Your task to perform on an android device: View the shopping cart on newegg. Image 0: 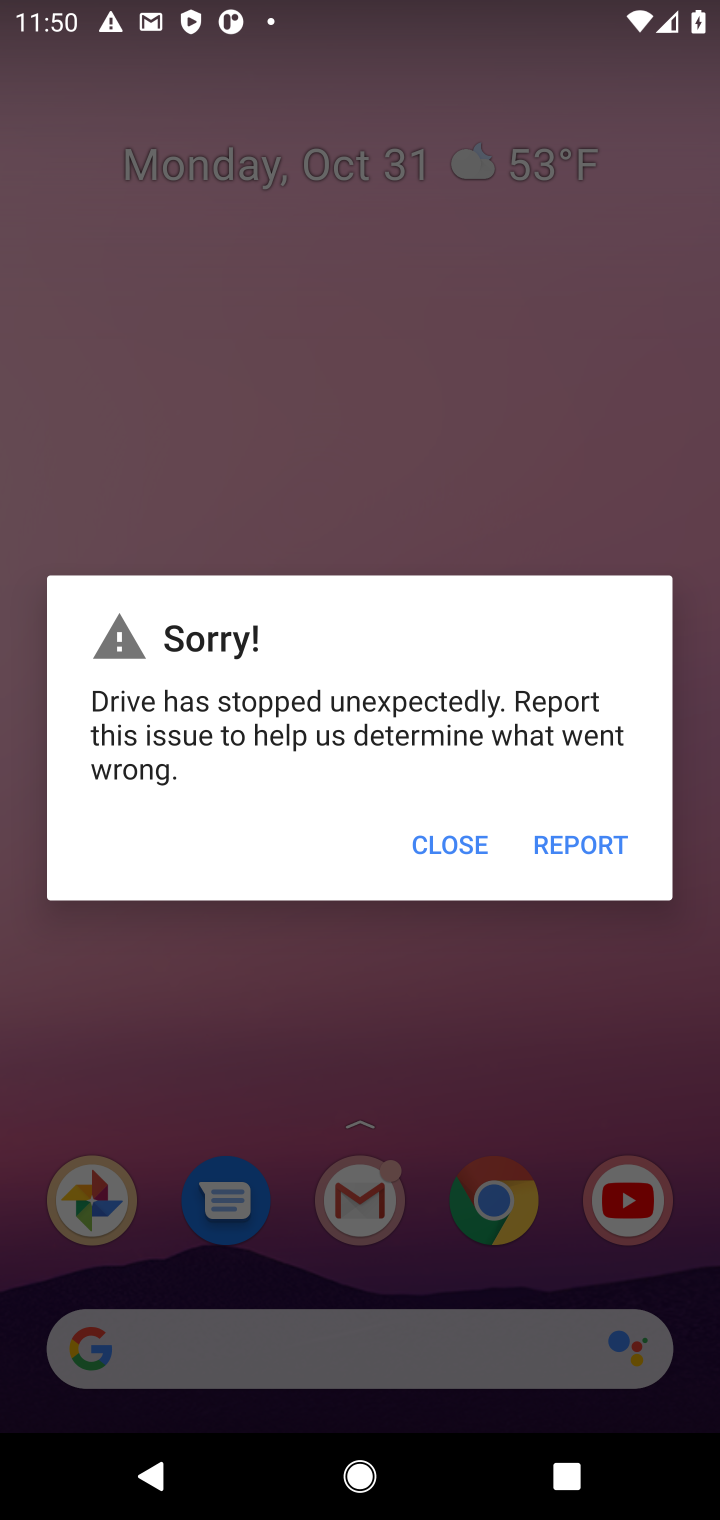
Step 0: click (403, 849)
Your task to perform on an android device: View the shopping cart on newegg. Image 1: 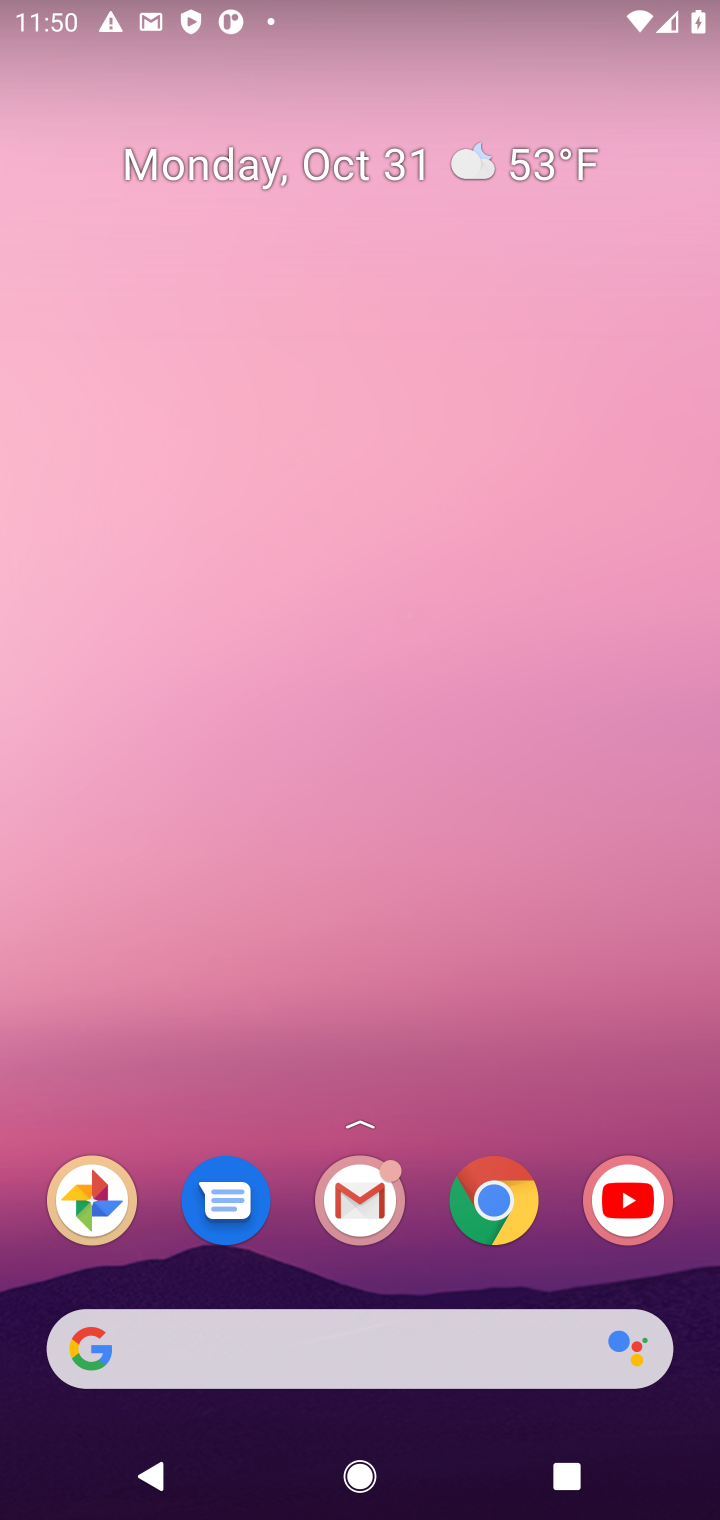
Step 1: click (503, 1206)
Your task to perform on an android device: View the shopping cart on newegg. Image 2: 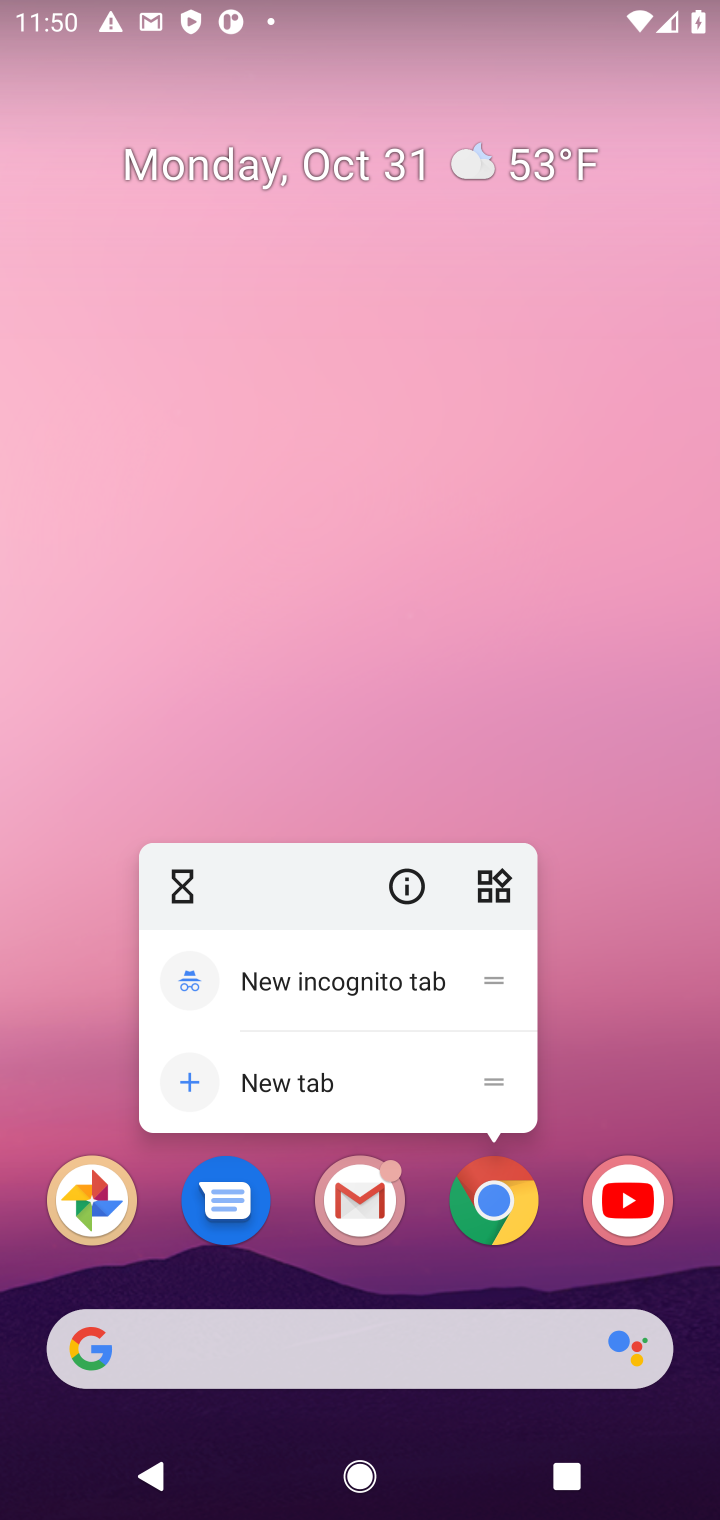
Step 2: click (501, 1222)
Your task to perform on an android device: View the shopping cart on newegg. Image 3: 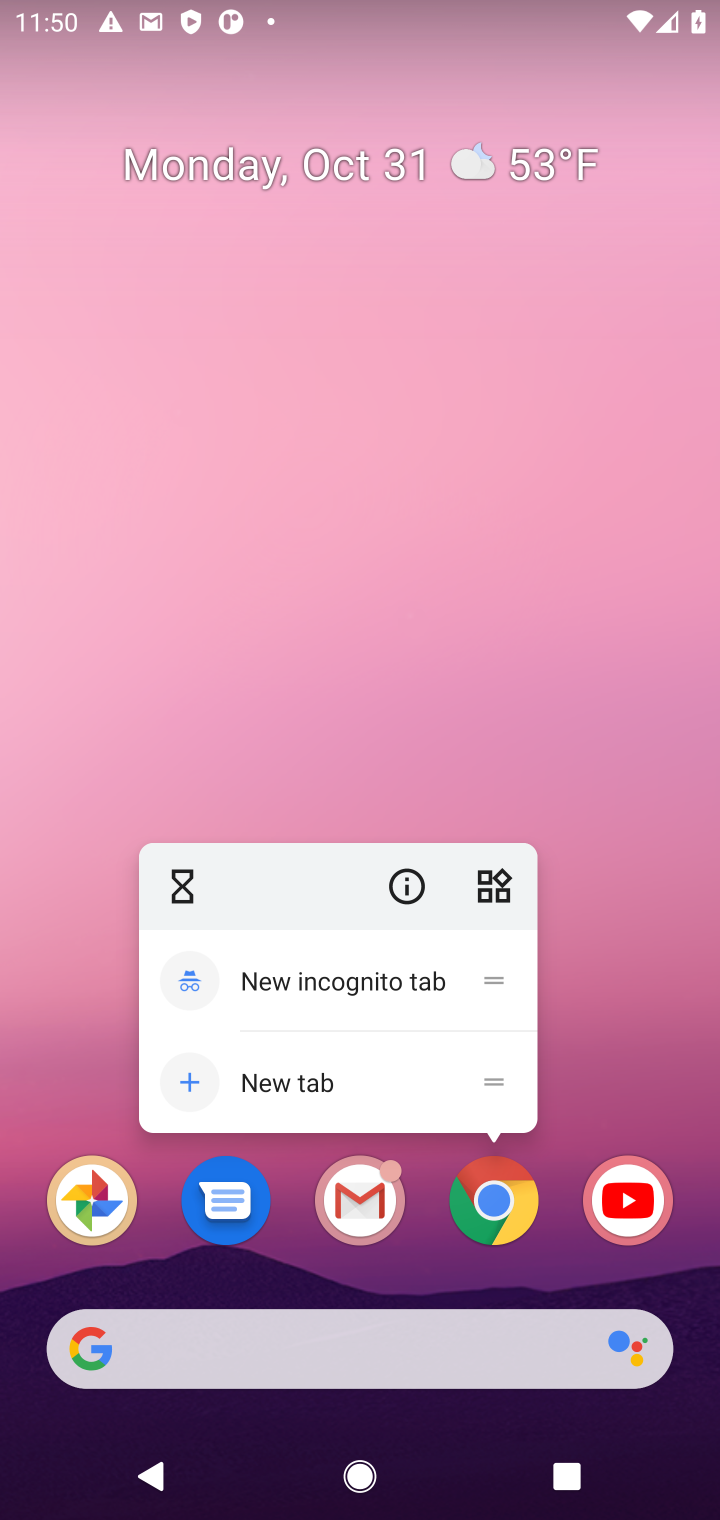
Step 3: click (528, 1222)
Your task to perform on an android device: View the shopping cart on newegg. Image 4: 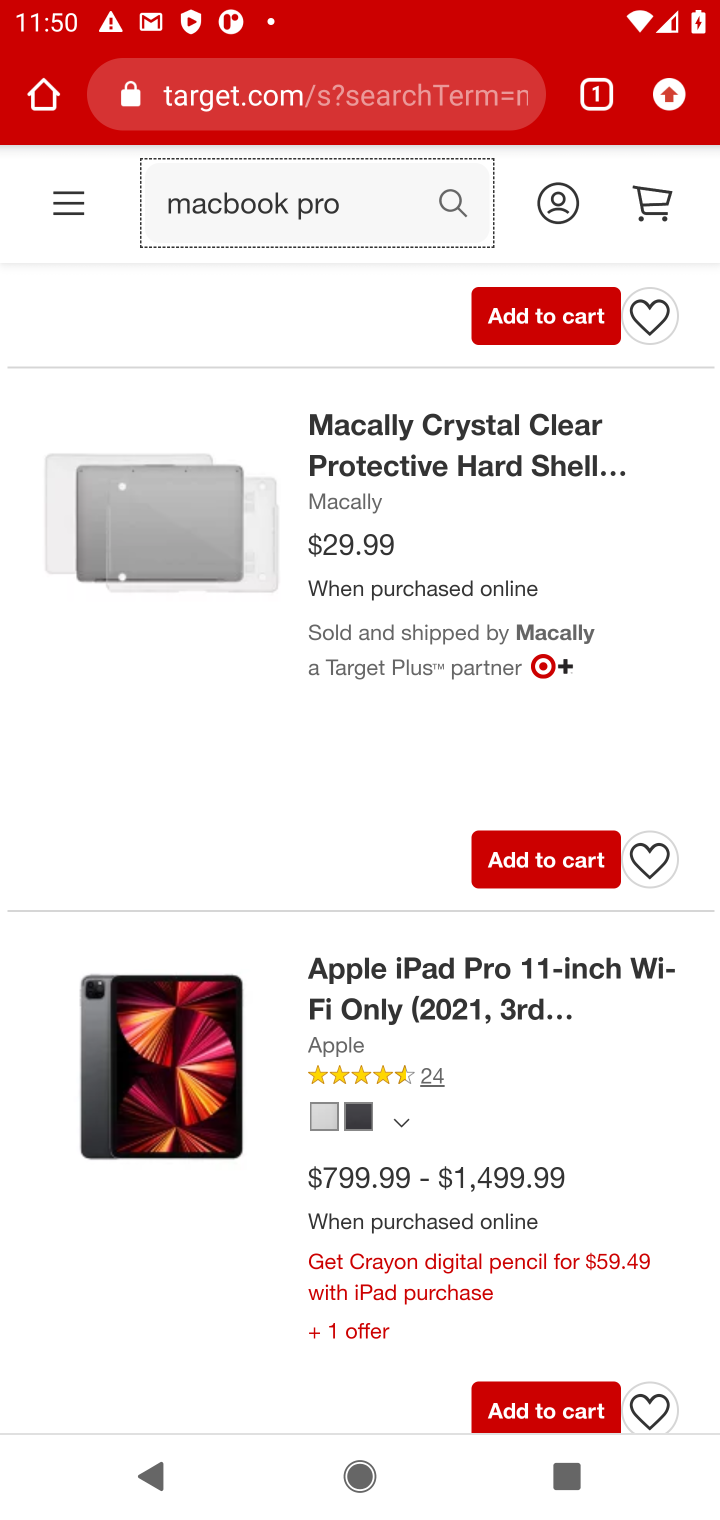
Step 4: click (243, 103)
Your task to perform on an android device: View the shopping cart on newegg. Image 5: 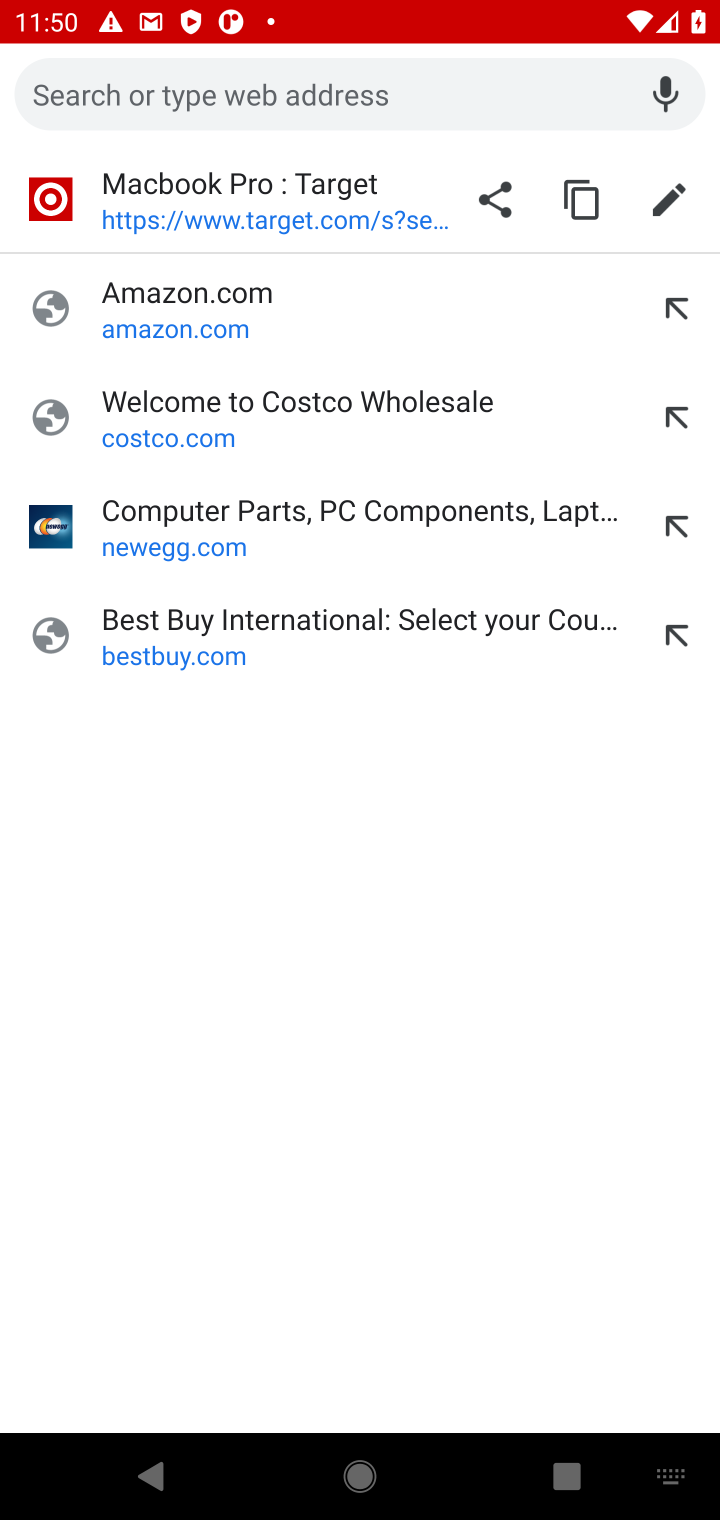
Step 5: click (254, 504)
Your task to perform on an android device: View the shopping cart on newegg. Image 6: 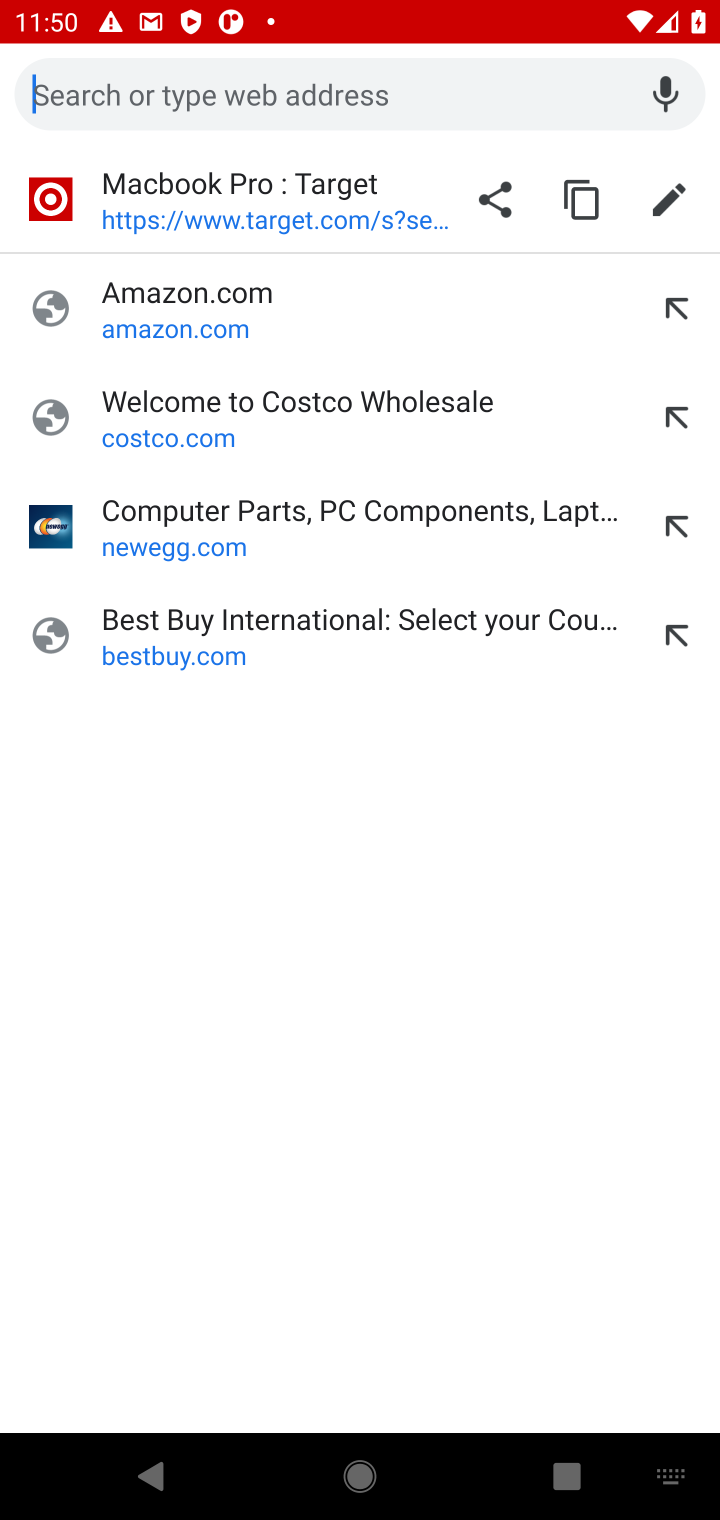
Step 6: click (254, 504)
Your task to perform on an android device: View the shopping cart on newegg. Image 7: 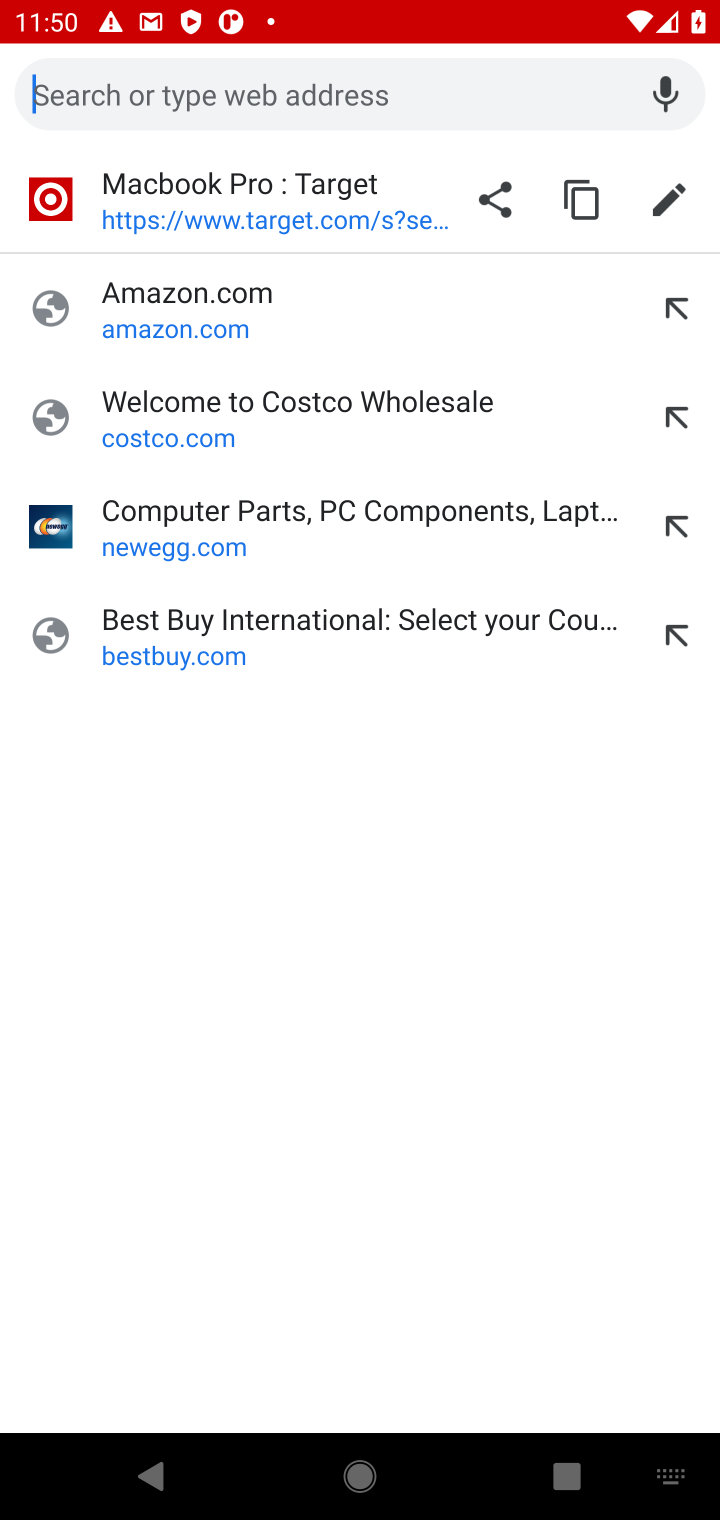
Step 7: click (227, 535)
Your task to perform on an android device: View the shopping cart on newegg. Image 8: 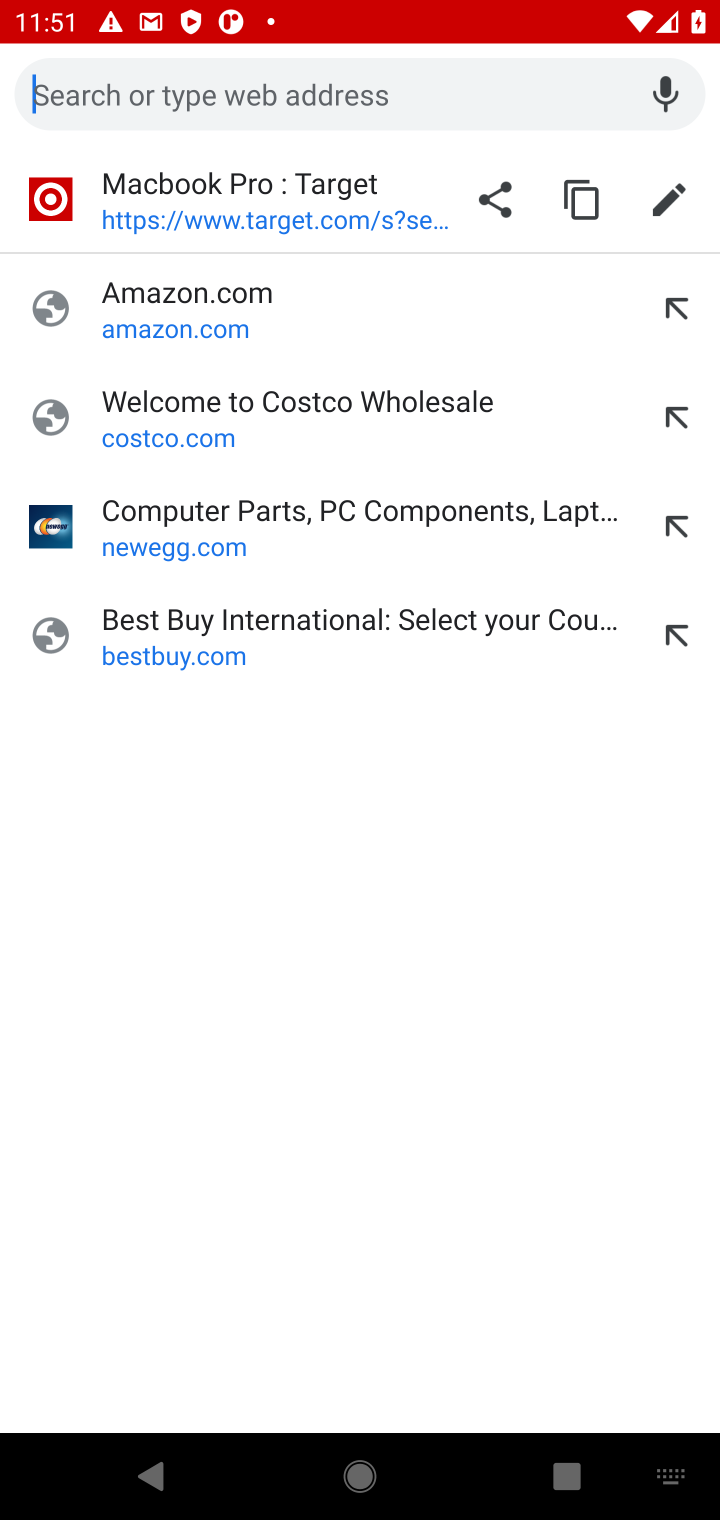
Step 8: click (328, 971)
Your task to perform on an android device: View the shopping cart on newegg. Image 9: 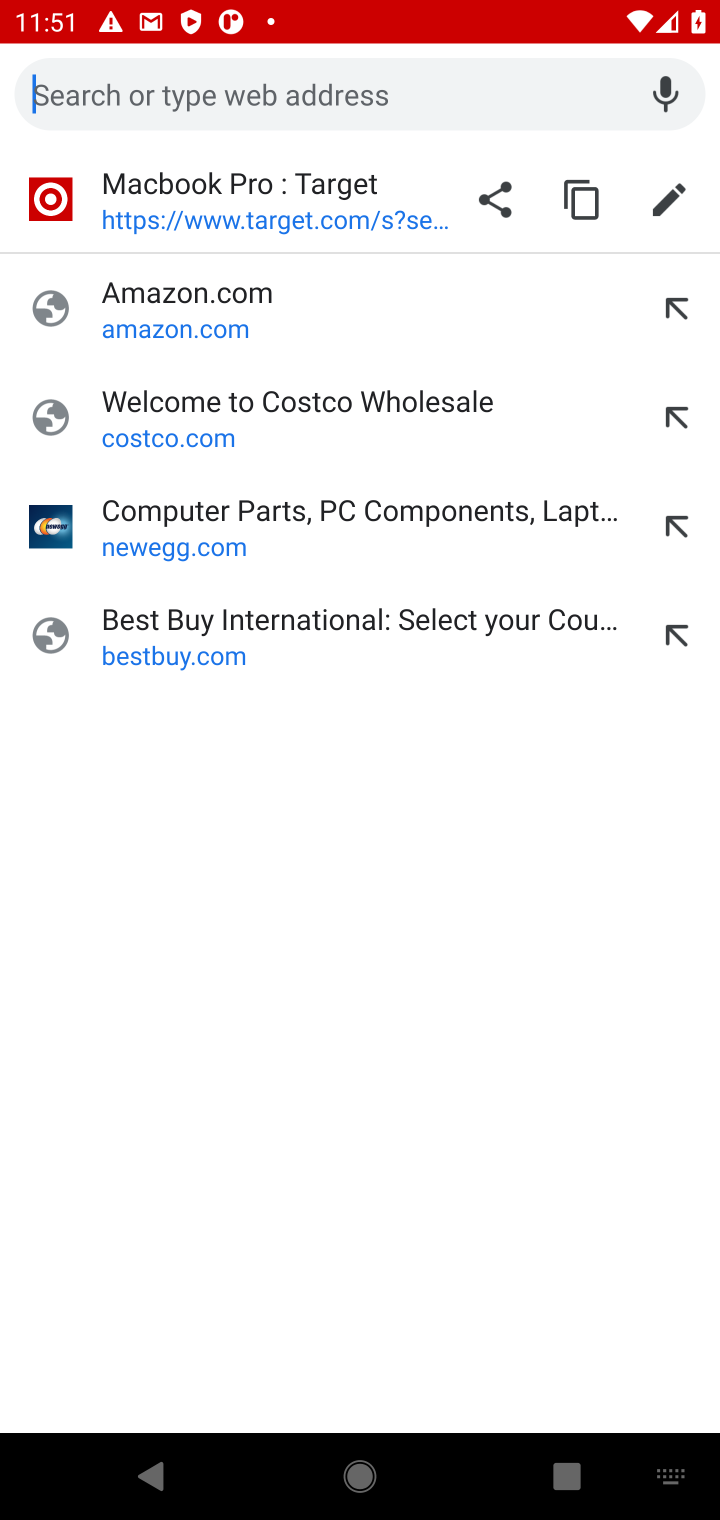
Step 9: click (210, 537)
Your task to perform on an android device: View the shopping cart on newegg. Image 10: 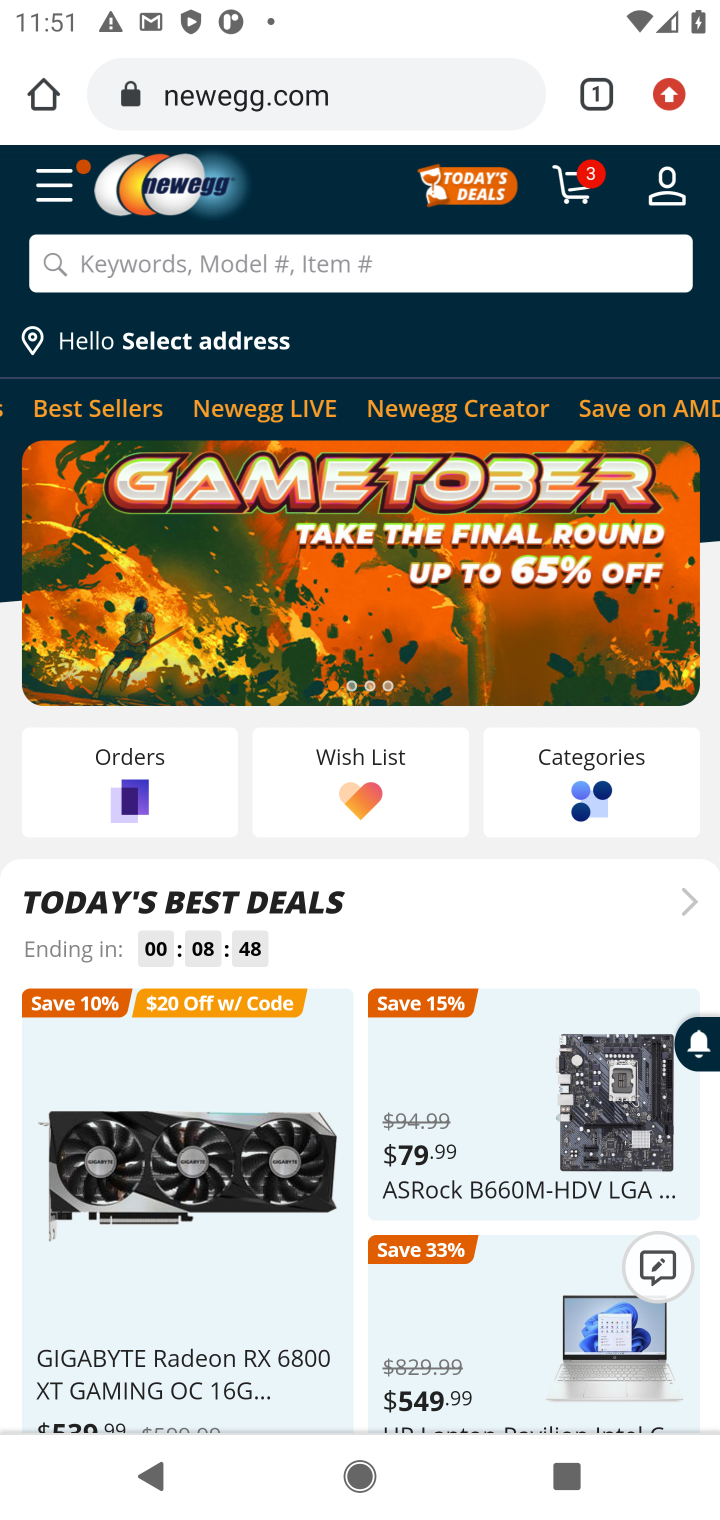
Step 10: click (575, 171)
Your task to perform on an android device: View the shopping cart on newegg. Image 11: 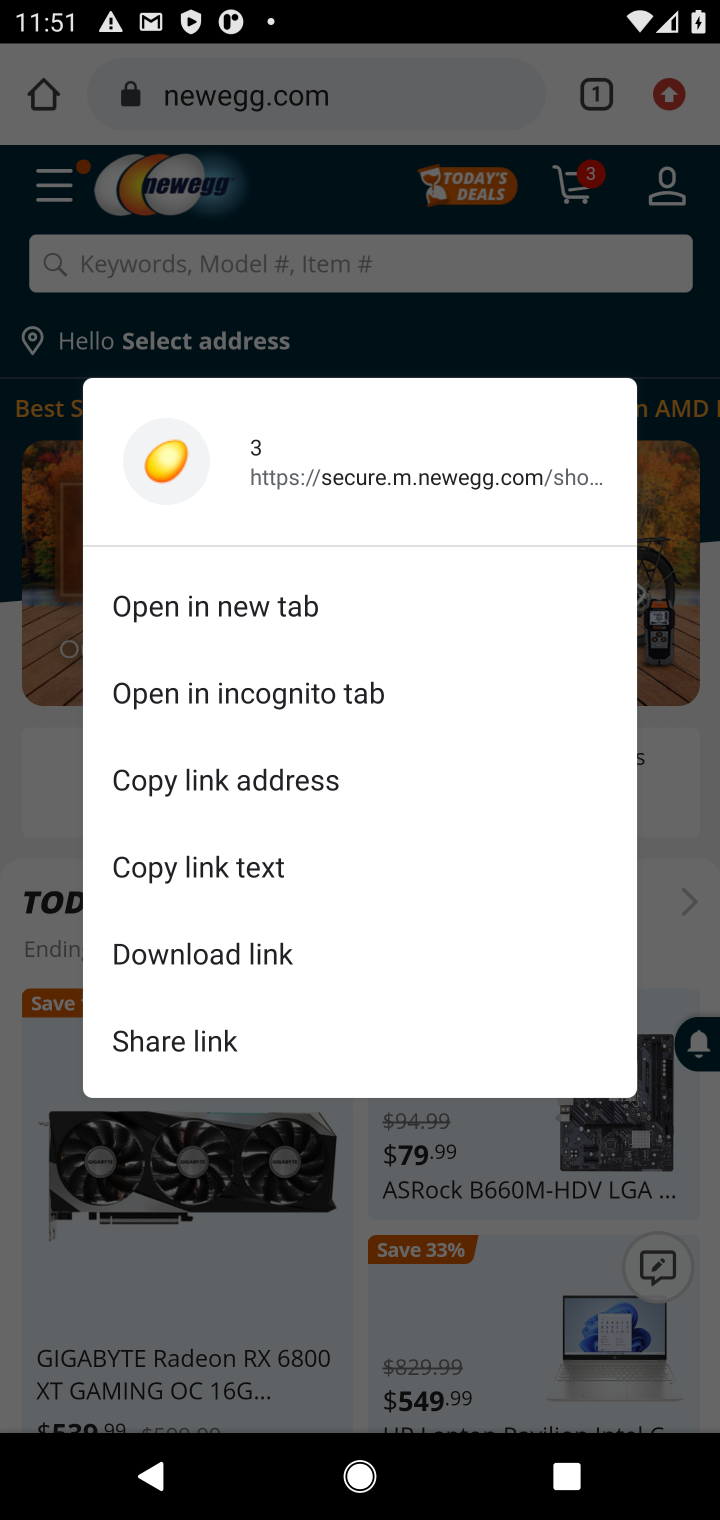
Step 11: click (575, 161)
Your task to perform on an android device: View the shopping cart on newegg. Image 12: 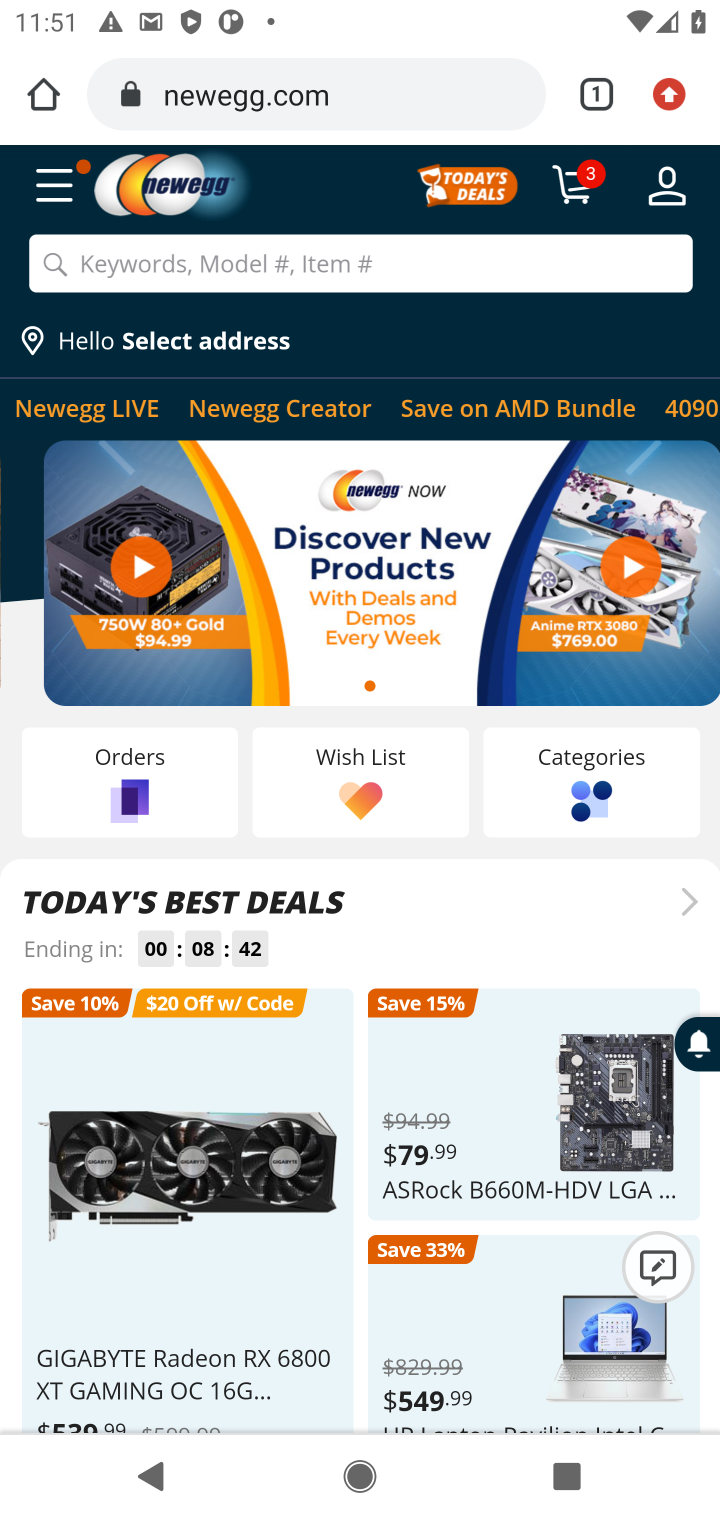
Step 12: click (571, 210)
Your task to perform on an android device: View the shopping cart on newegg. Image 13: 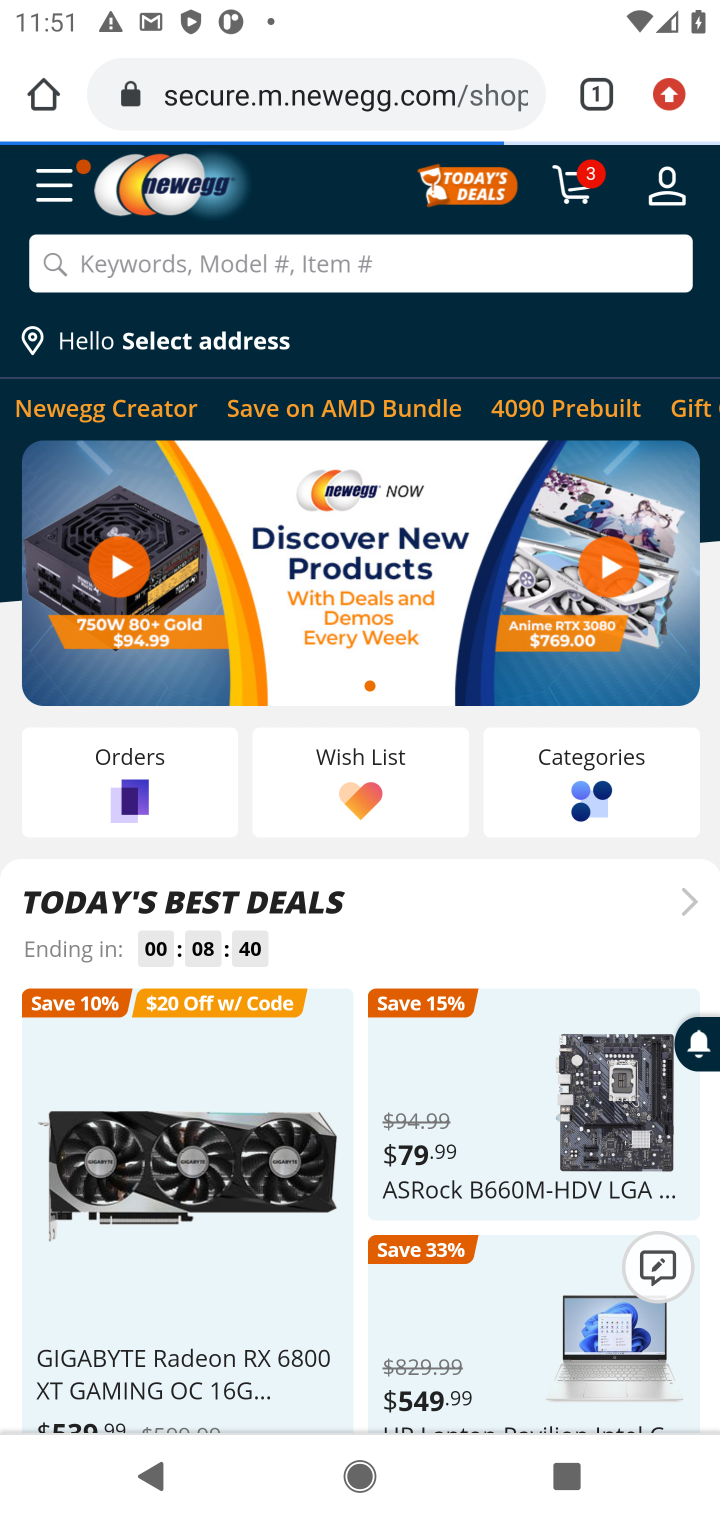
Step 13: click (575, 206)
Your task to perform on an android device: View the shopping cart on newegg. Image 14: 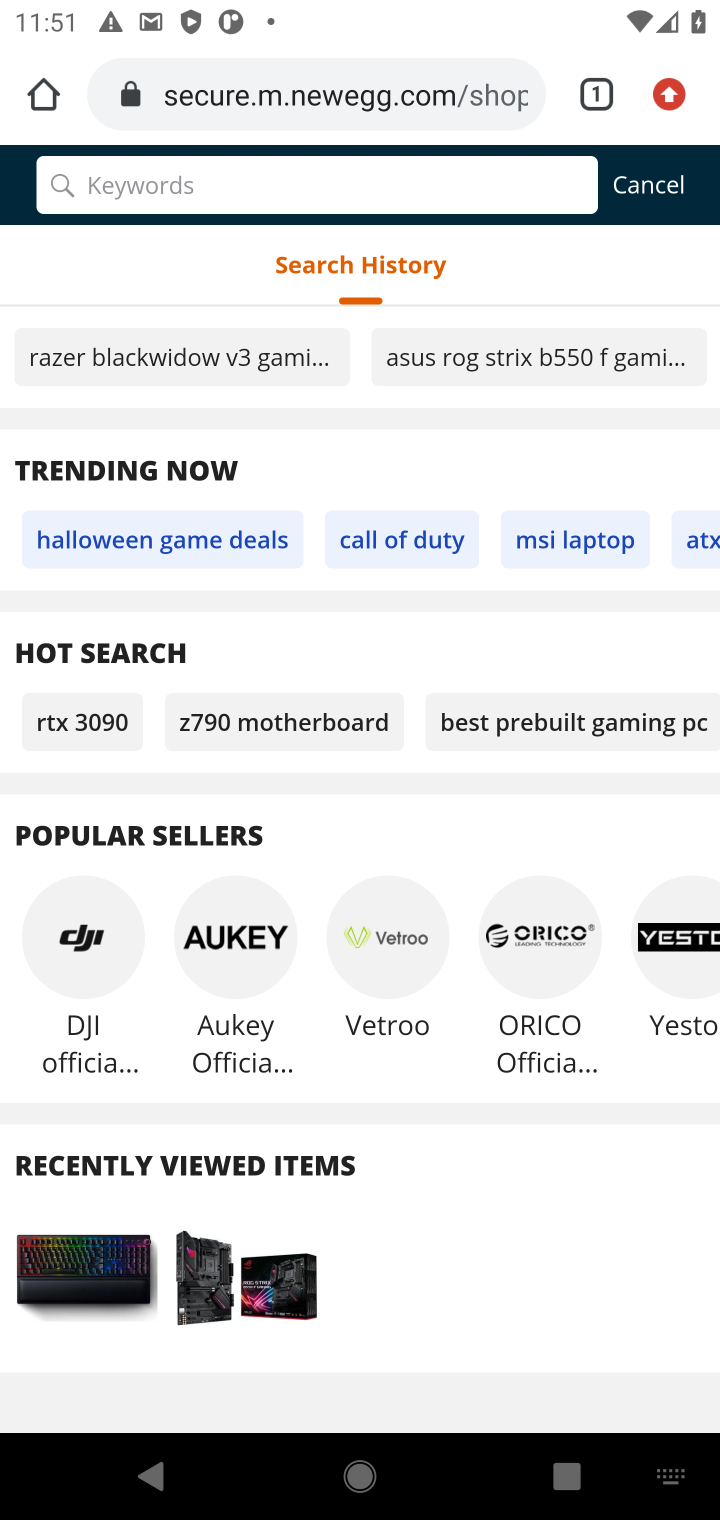
Step 14: drag from (451, 1060) to (511, 459)
Your task to perform on an android device: View the shopping cart on newegg. Image 15: 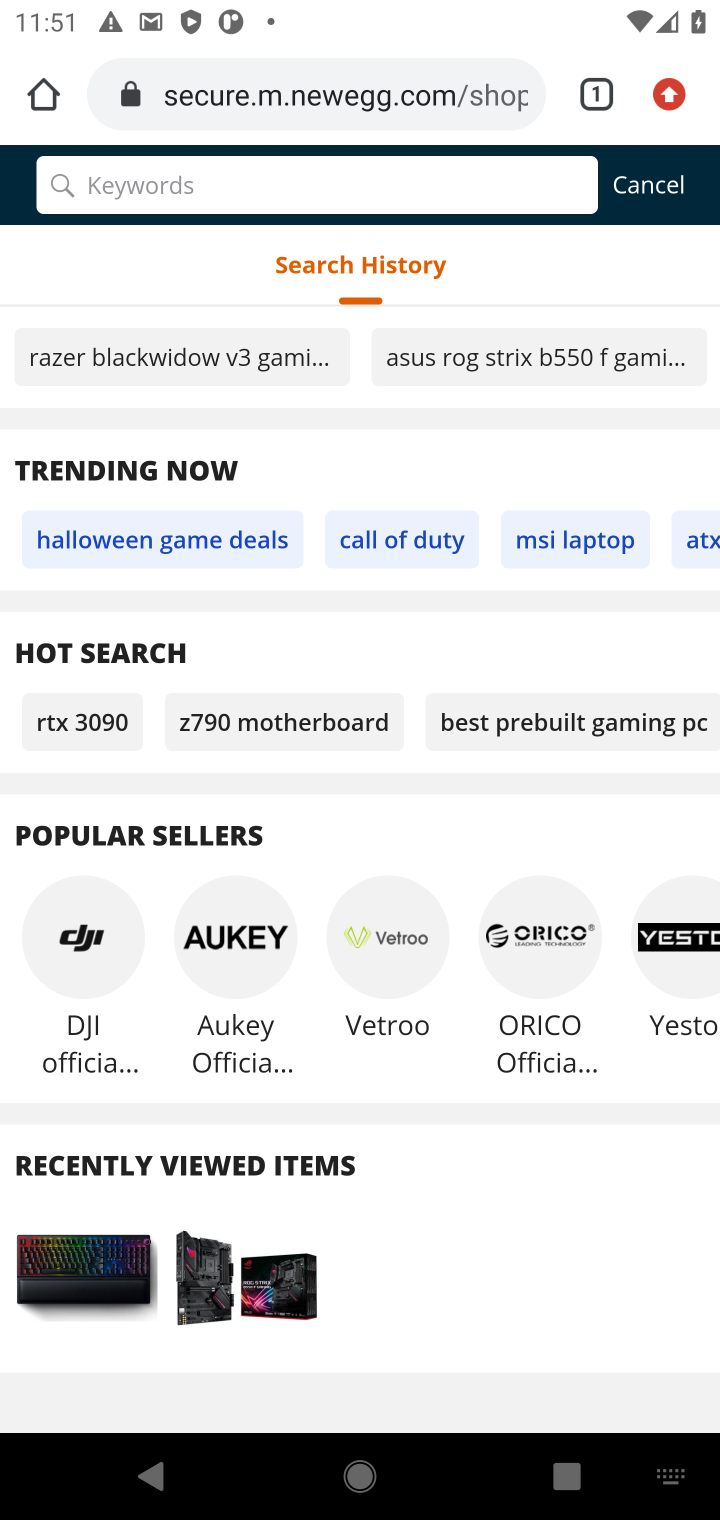
Step 15: drag from (421, 1067) to (460, 452)
Your task to perform on an android device: View the shopping cart on newegg. Image 16: 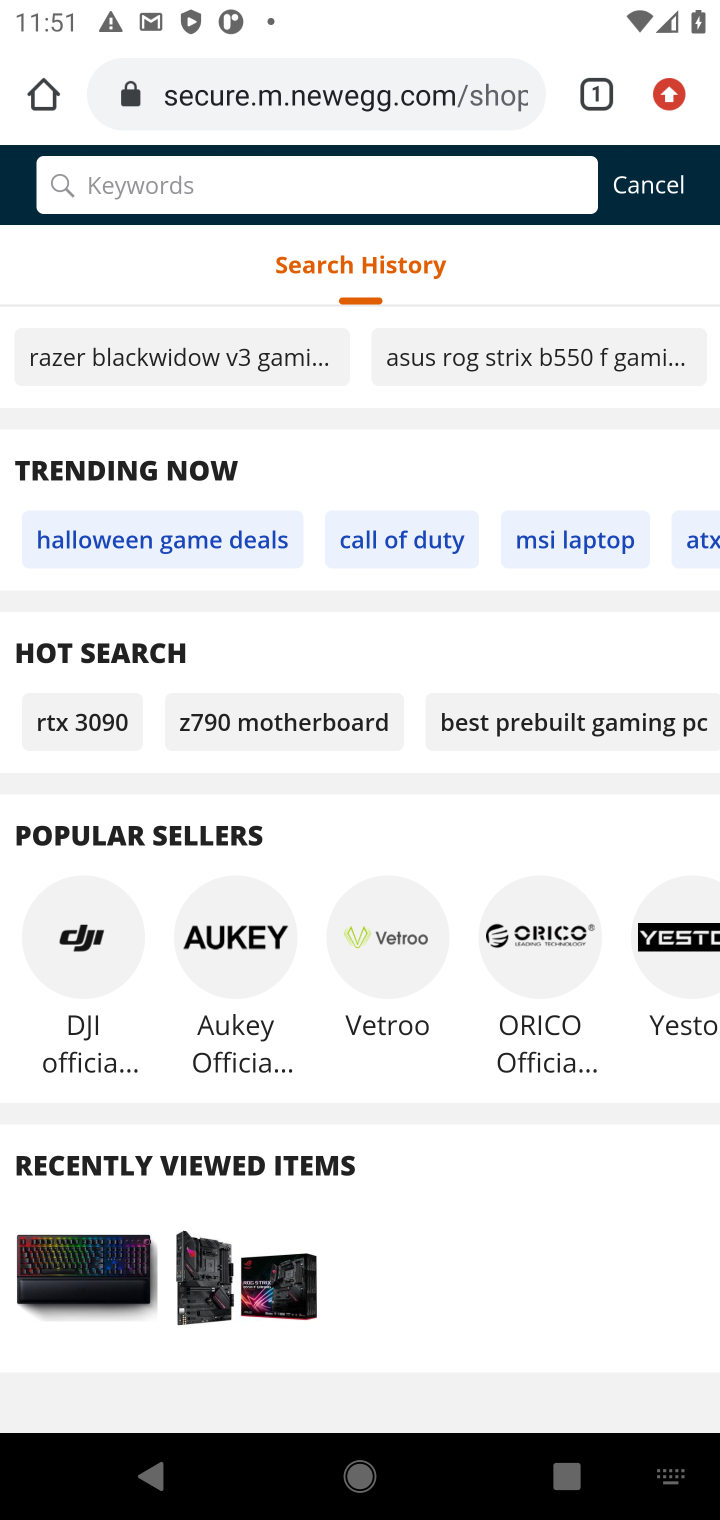
Step 16: drag from (400, 1003) to (450, 528)
Your task to perform on an android device: View the shopping cart on newegg. Image 17: 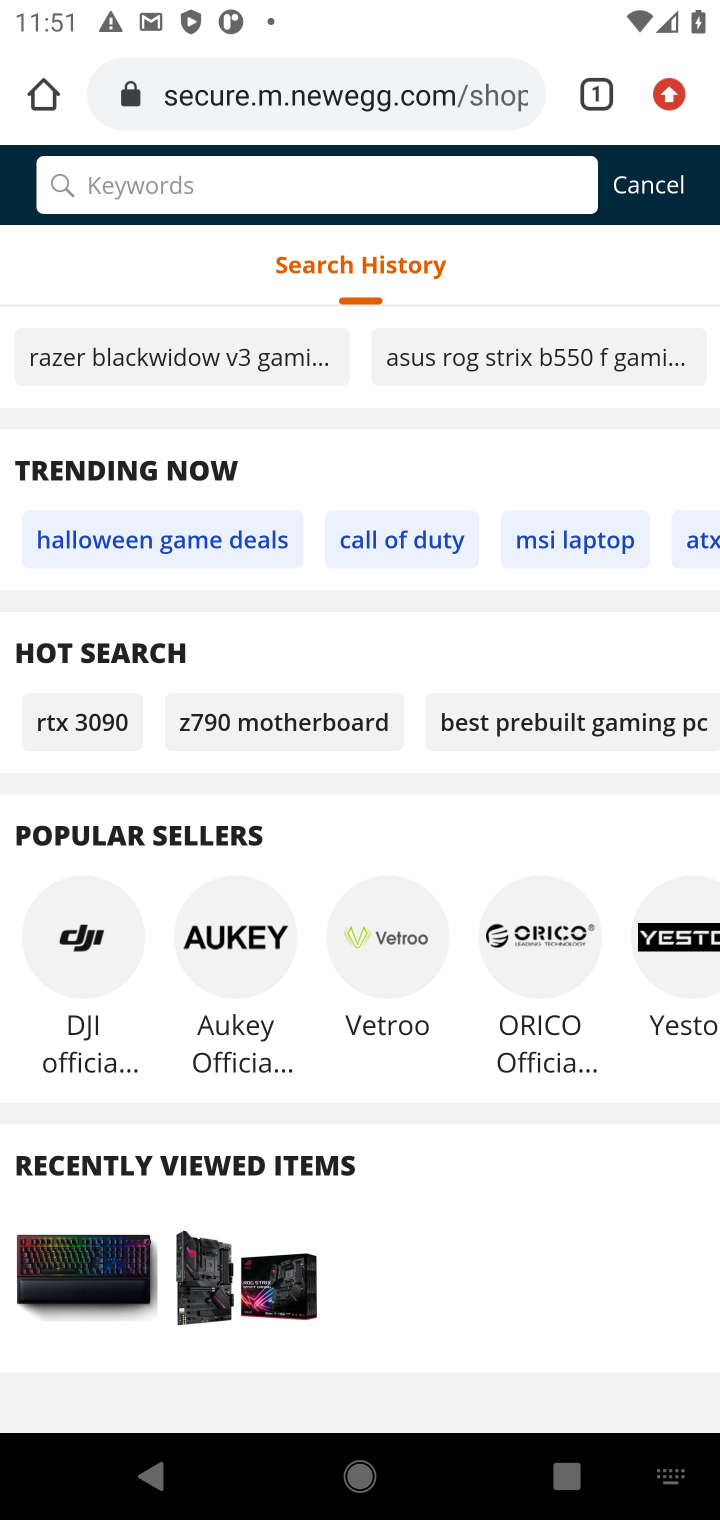
Step 17: drag from (443, 866) to (503, 519)
Your task to perform on an android device: View the shopping cart on newegg. Image 18: 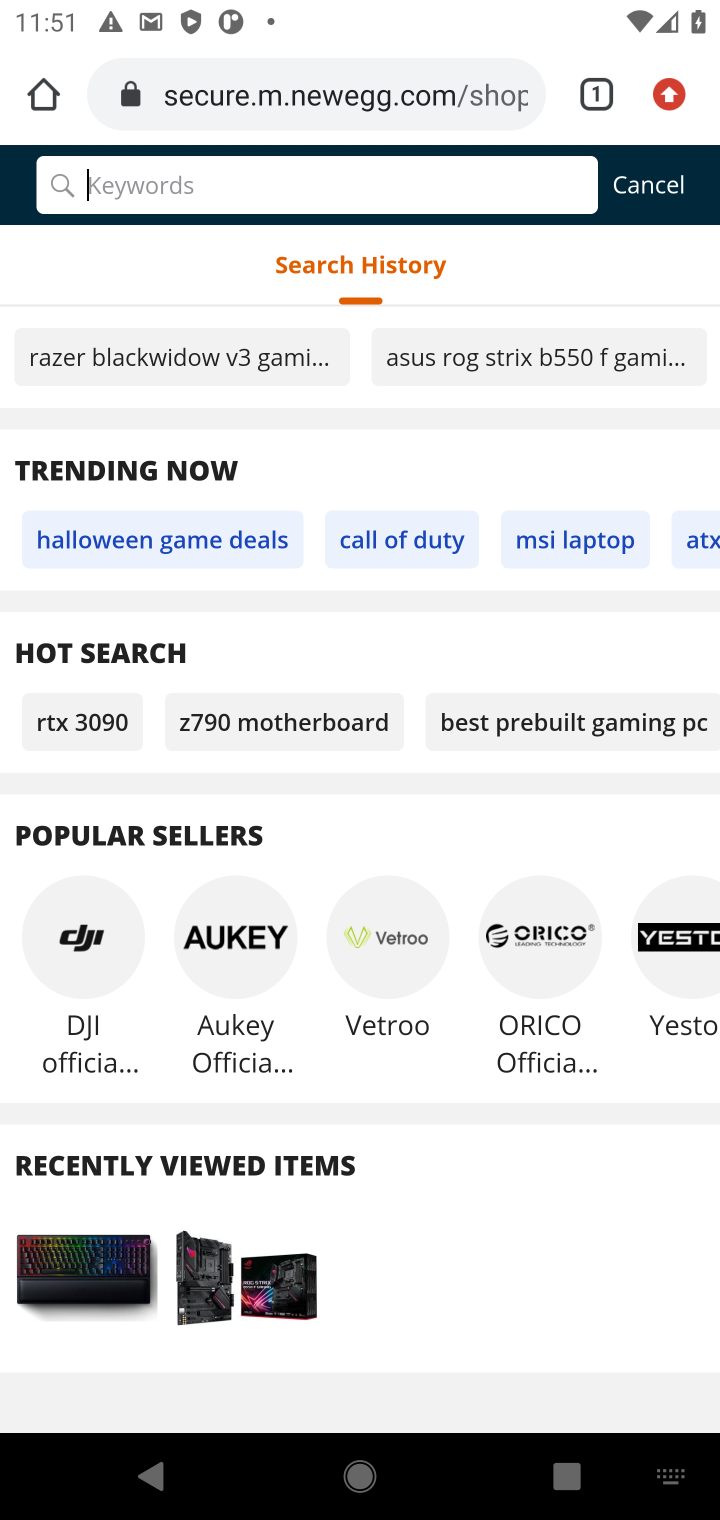
Step 18: drag from (429, 884) to (483, 530)
Your task to perform on an android device: View the shopping cart on newegg. Image 19: 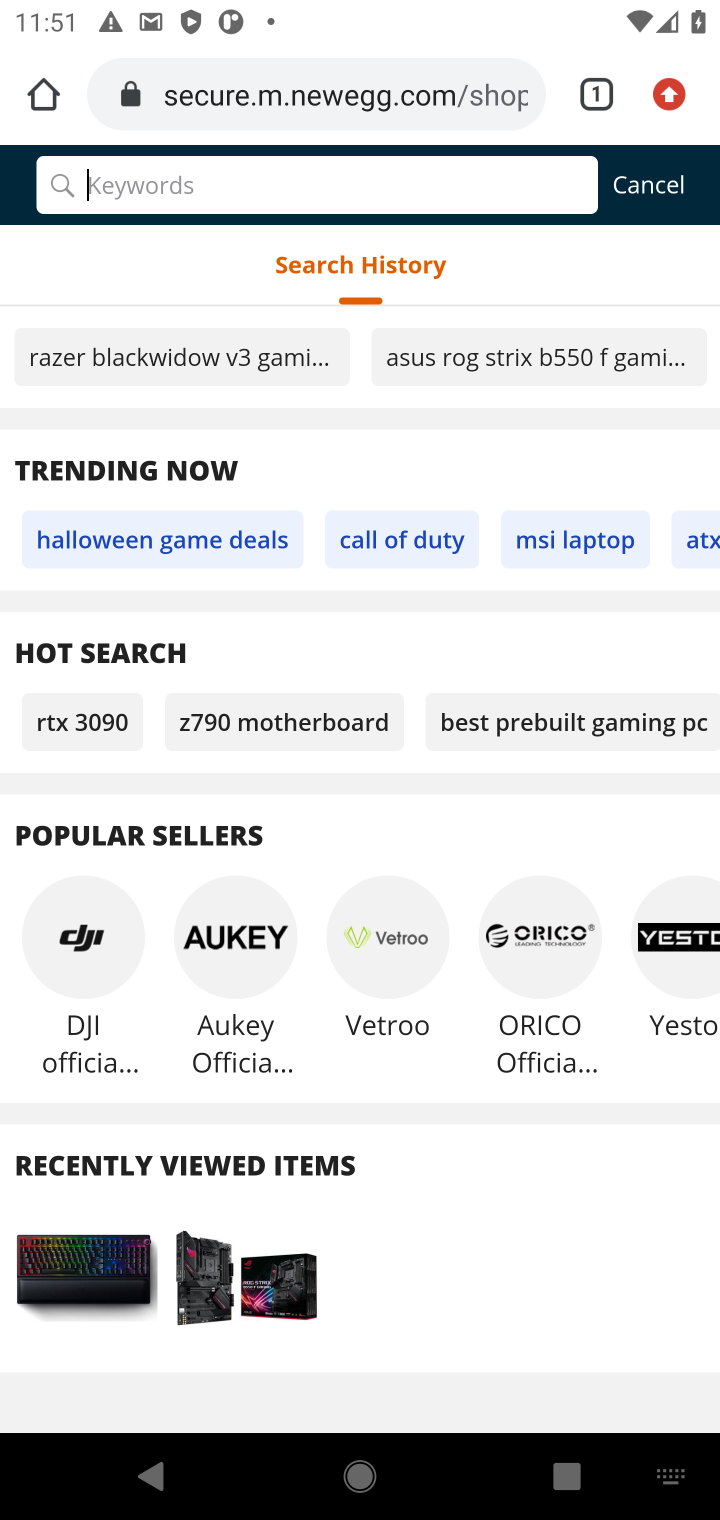
Step 19: drag from (439, 855) to (470, 583)
Your task to perform on an android device: View the shopping cart on newegg. Image 20: 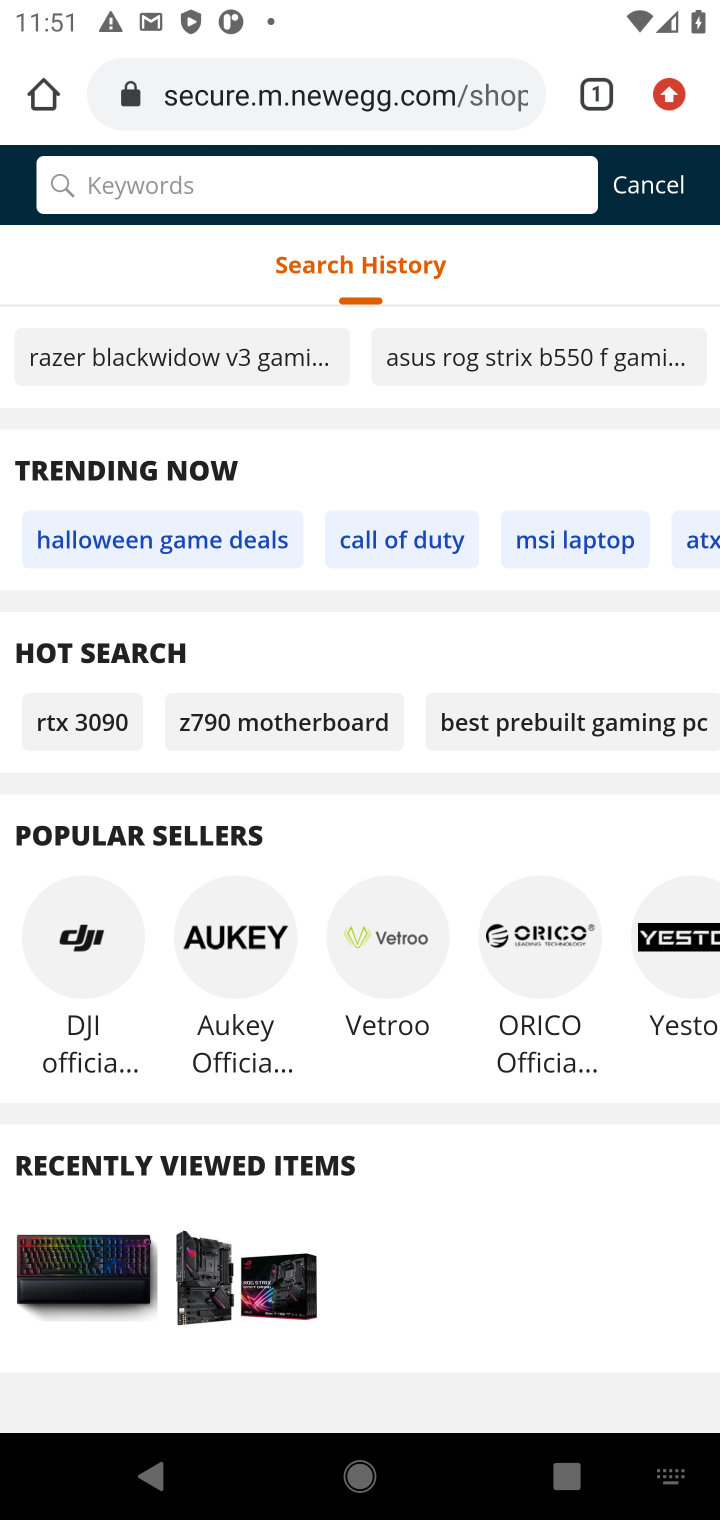
Step 20: drag from (354, 711) to (425, 281)
Your task to perform on an android device: View the shopping cart on newegg. Image 21: 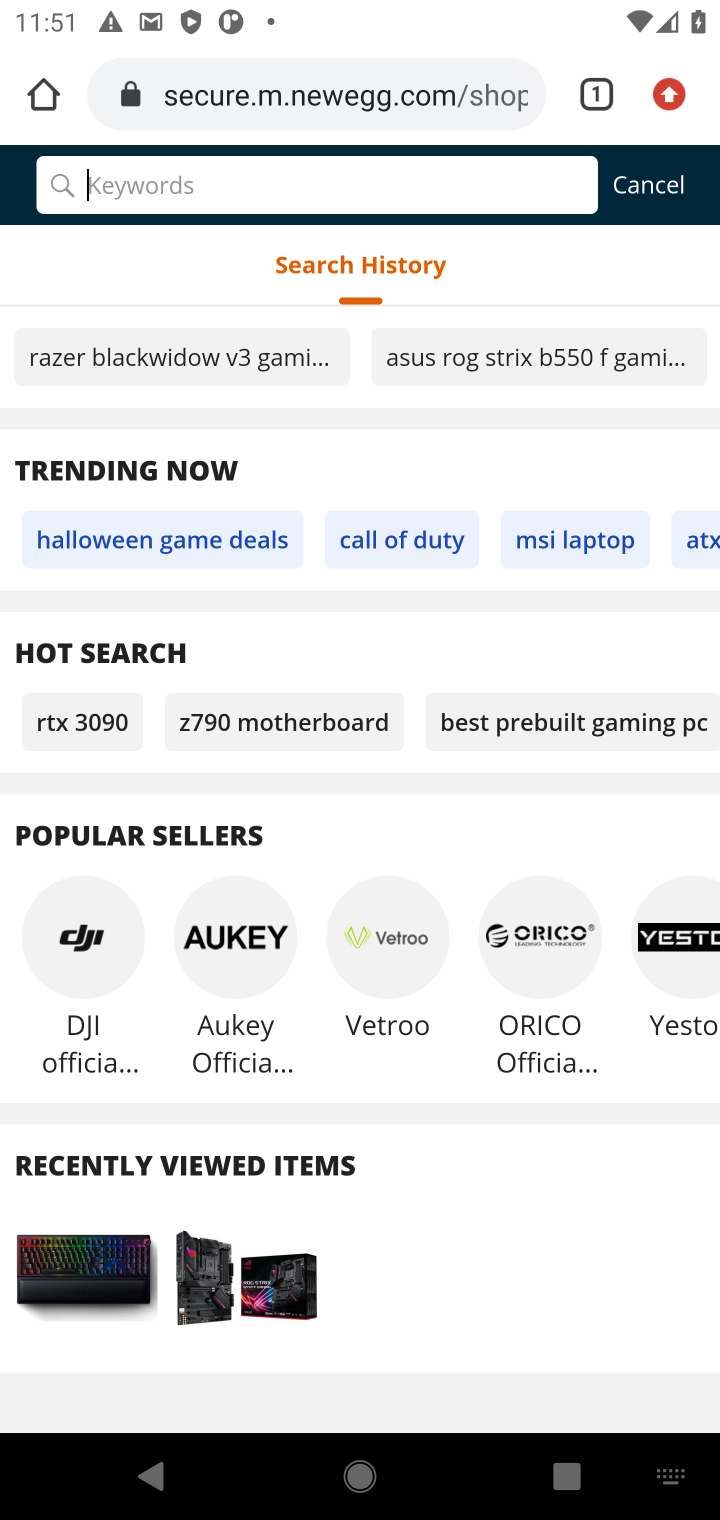
Step 21: click (460, 619)
Your task to perform on an android device: View the shopping cart on newegg. Image 22: 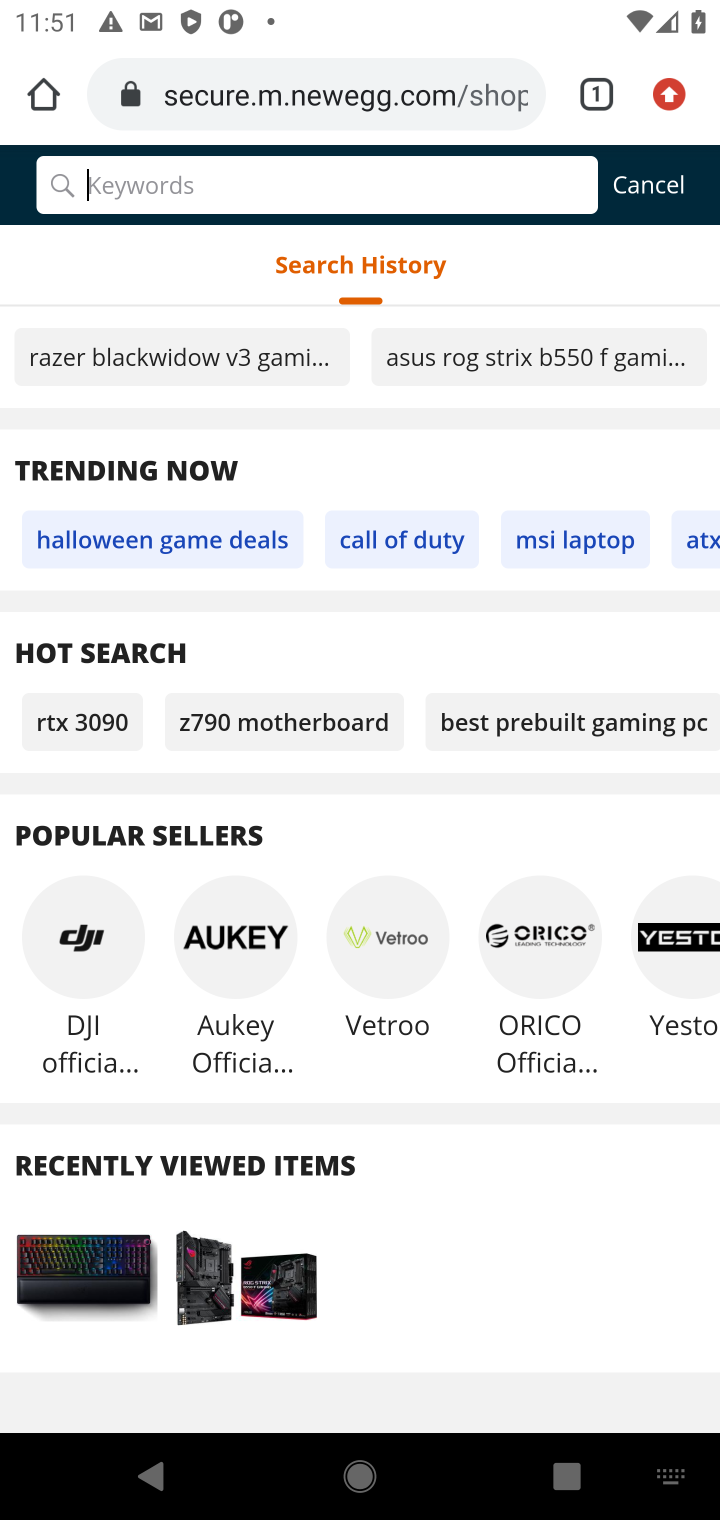
Step 22: task complete